Your task to perform on an android device: change the clock display to analog Image 0: 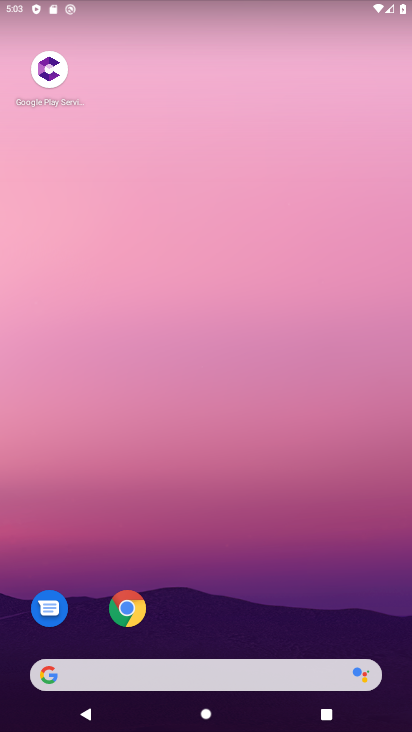
Step 0: drag from (239, 470) to (306, 65)
Your task to perform on an android device: change the clock display to analog Image 1: 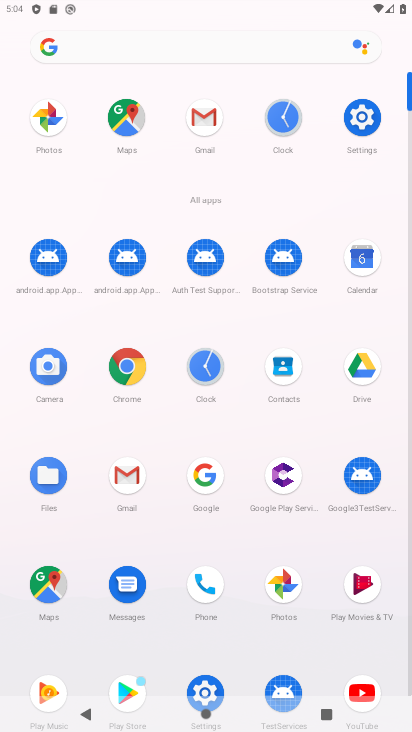
Step 1: click (209, 368)
Your task to perform on an android device: change the clock display to analog Image 2: 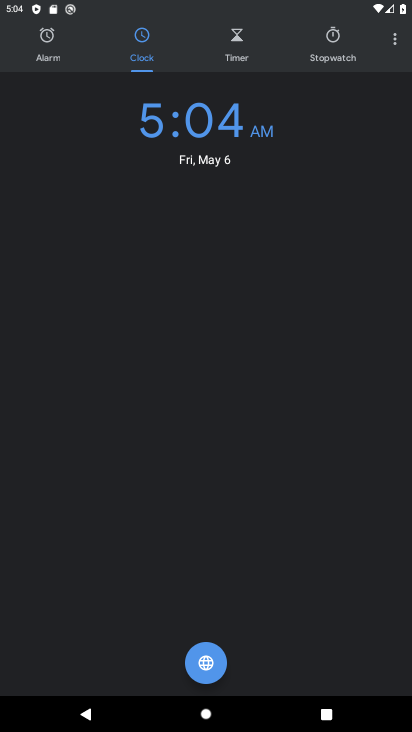
Step 2: click (400, 45)
Your task to perform on an android device: change the clock display to analog Image 3: 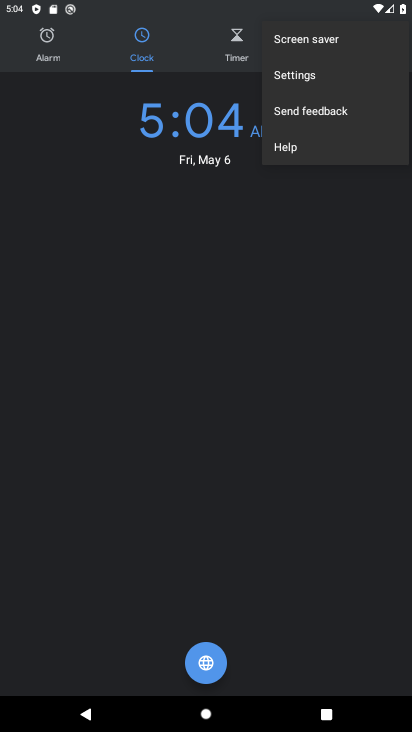
Step 3: click (396, 46)
Your task to perform on an android device: change the clock display to analog Image 4: 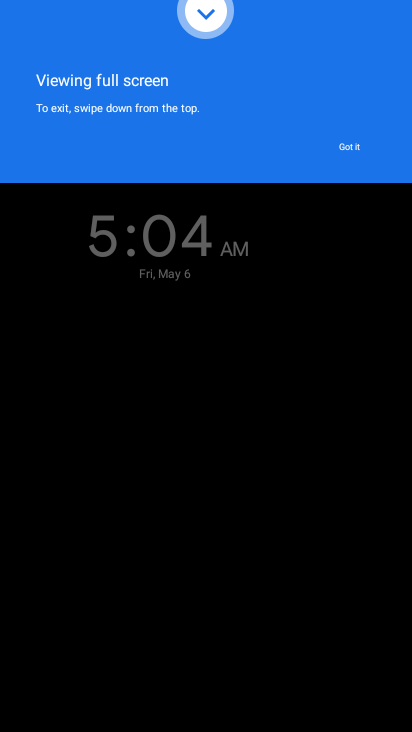
Step 4: click (396, 46)
Your task to perform on an android device: change the clock display to analog Image 5: 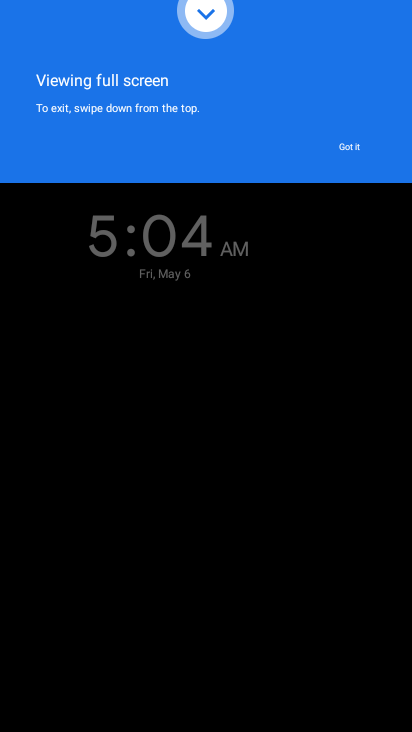
Step 5: press back button
Your task to perform on an android device: change the clock display to analog Image 6: 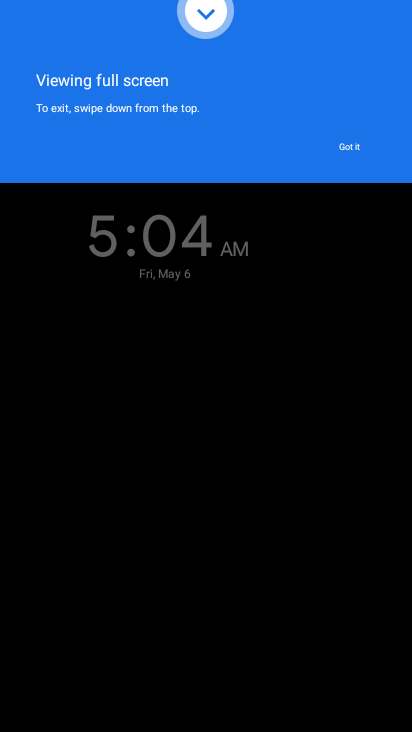
Step 6: press back button
Your task to perform on an android device: change the clock display to analog Image 7: 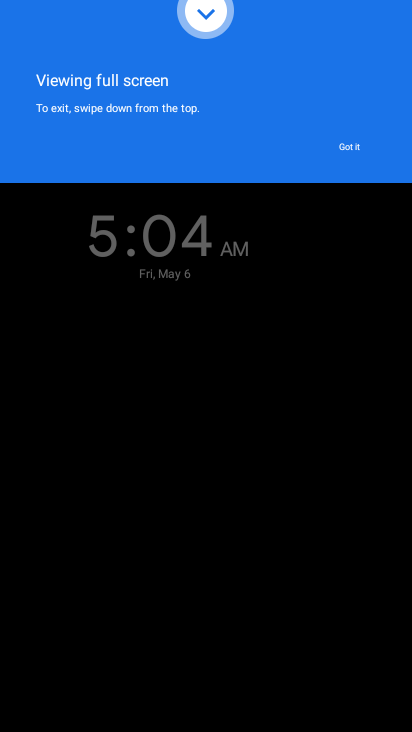
Step 7: press back button
Your task to perform on an android device: change the clock display to analog Image 8: 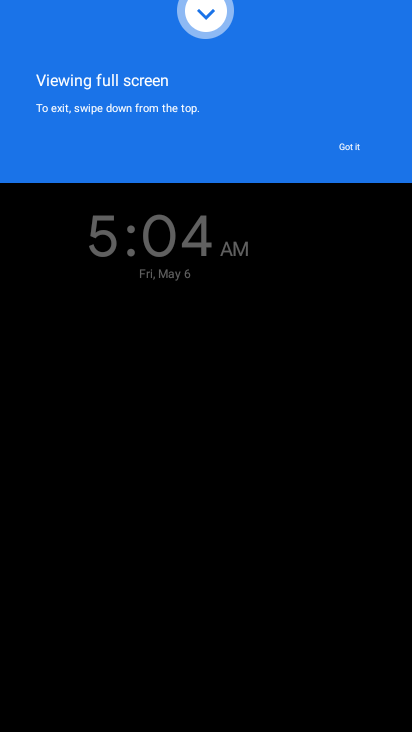
Step 8: press back button
Your task to perform on an android device: change the clock display to analog Image 9: 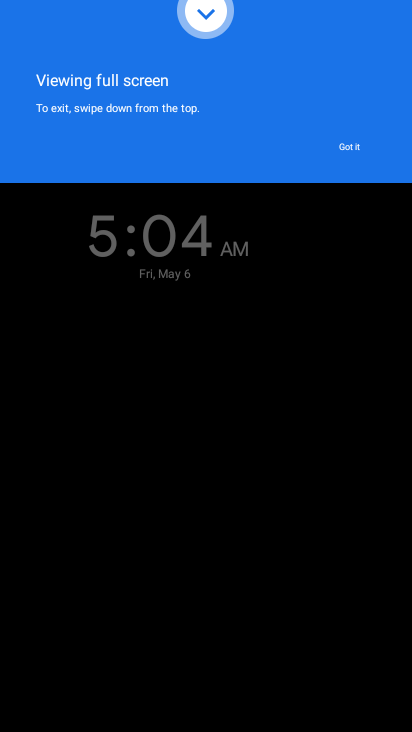
Step 9: press back button
Your task to perform on an android device: change the clock display to analog Image 10: 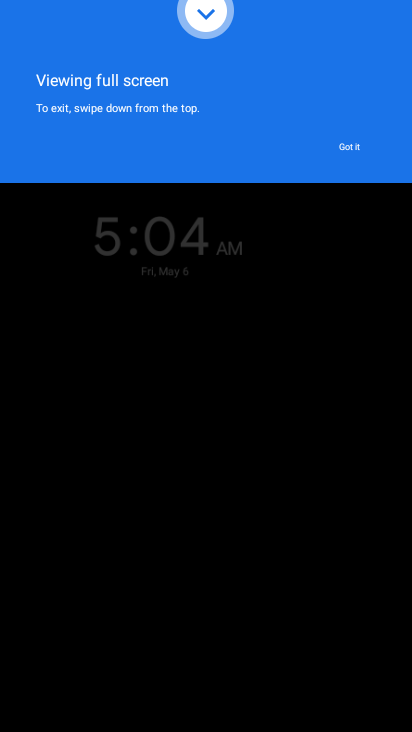
Step 10: press back button
Your task to perform on an android device: change the clock display to analog Image 11: 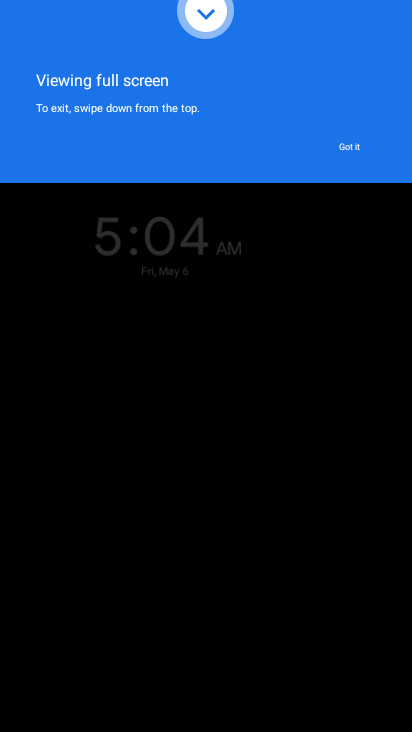
Step 11: click (361, 151)
Your task to perform on an android device: change the clock display to analog Image 12: 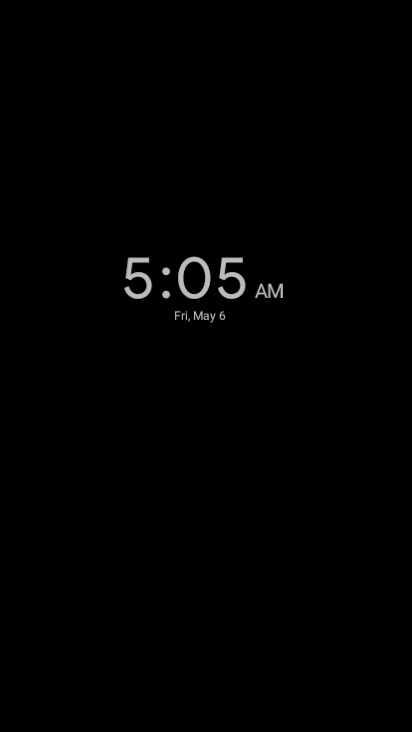
Step 12: press back button
Your task to perform on an android device: change the clock display to analog Image 13: 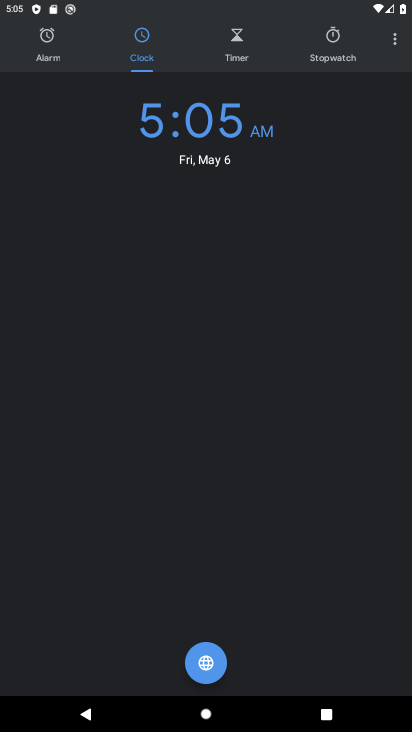
Step 13: click (397, 37)
Your task to perform on an android device: change the clock display to analog Image 14: 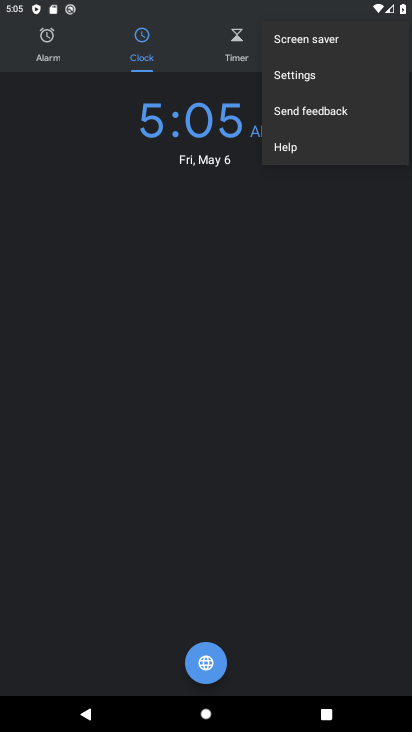
Step 14: click (312, 78)
Your task to perform on an android device: change the clock display to analog Image 15: 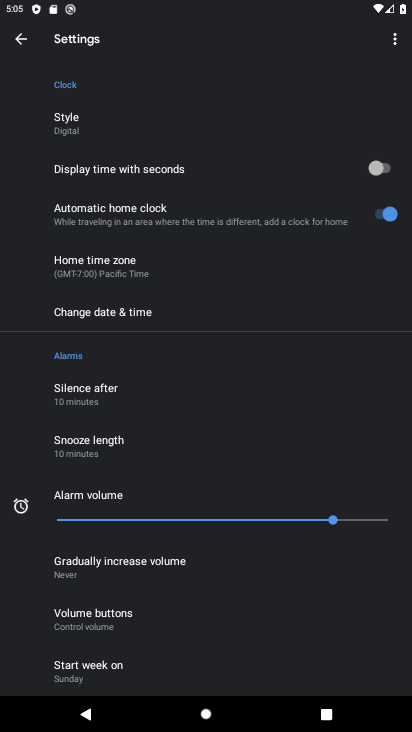
Step 15: drag from (326, 382) to (319, 311)
Your task to perform on an android device: change the clock display to analog Image 16: 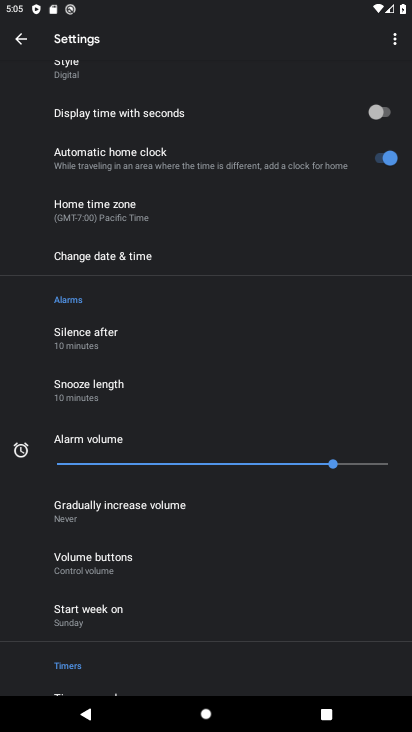
Step 16: drag from (275, 317) to (285, 565)
Your task to perform on an android device: change the clock display to analog Image 17: 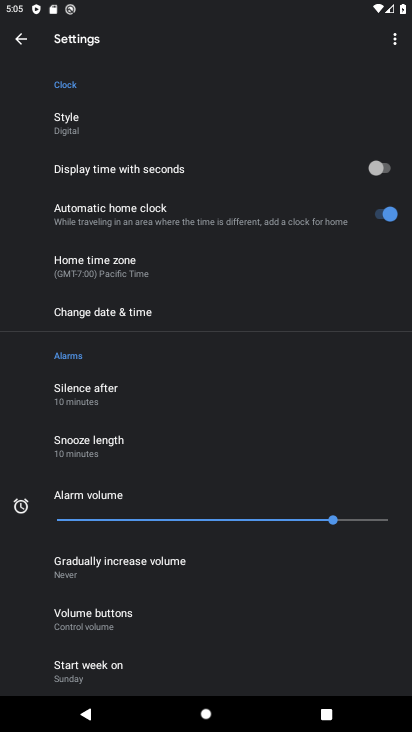
Step 17: click (97, 124)
Your task to perform on an android device: change the clock display to analog Image 18: 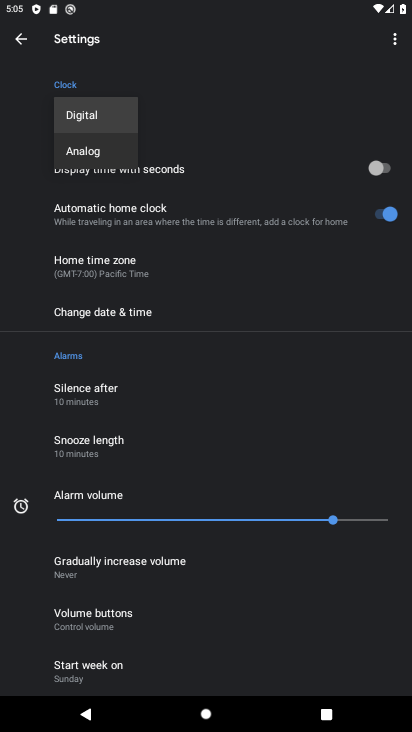
Step 18: click (111, 150)
Your task to perform on an android device: change the clock display to analog Image 19: 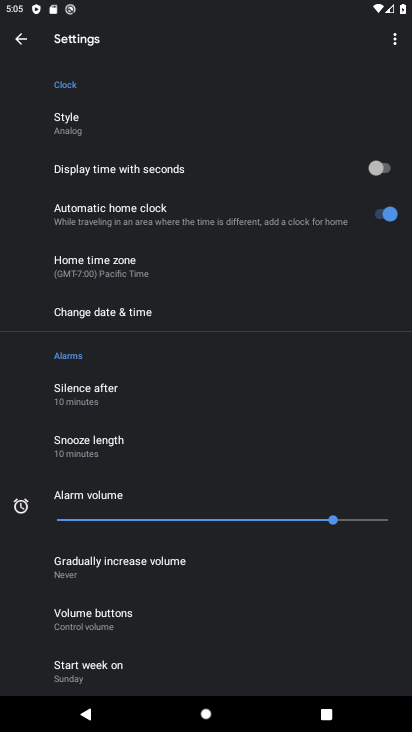
Step 19: task complete